Your task to perform on an android device: Clear the cart on bestbuy.com. Image 0: 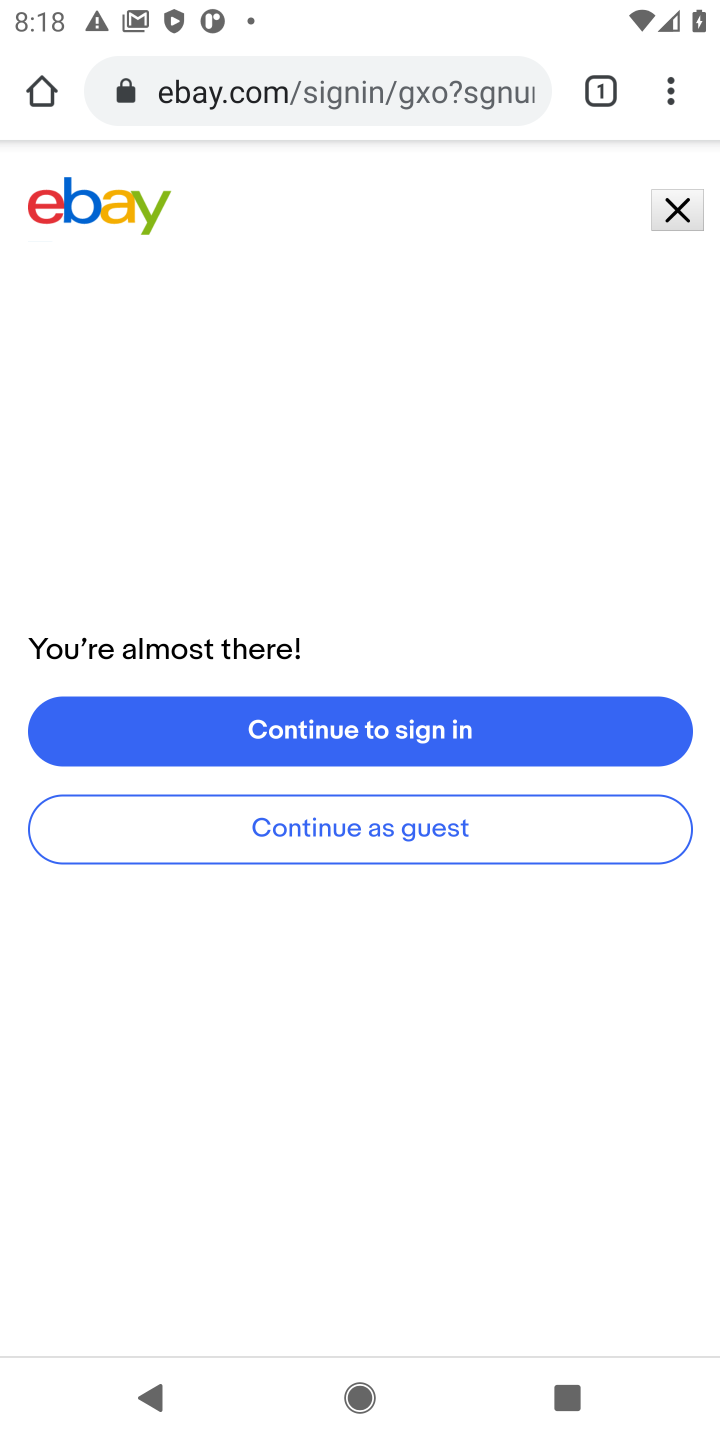
Step 0: press home button
Your task to perform on an android device: Clear the cart on bestbuy.com. Image 1: 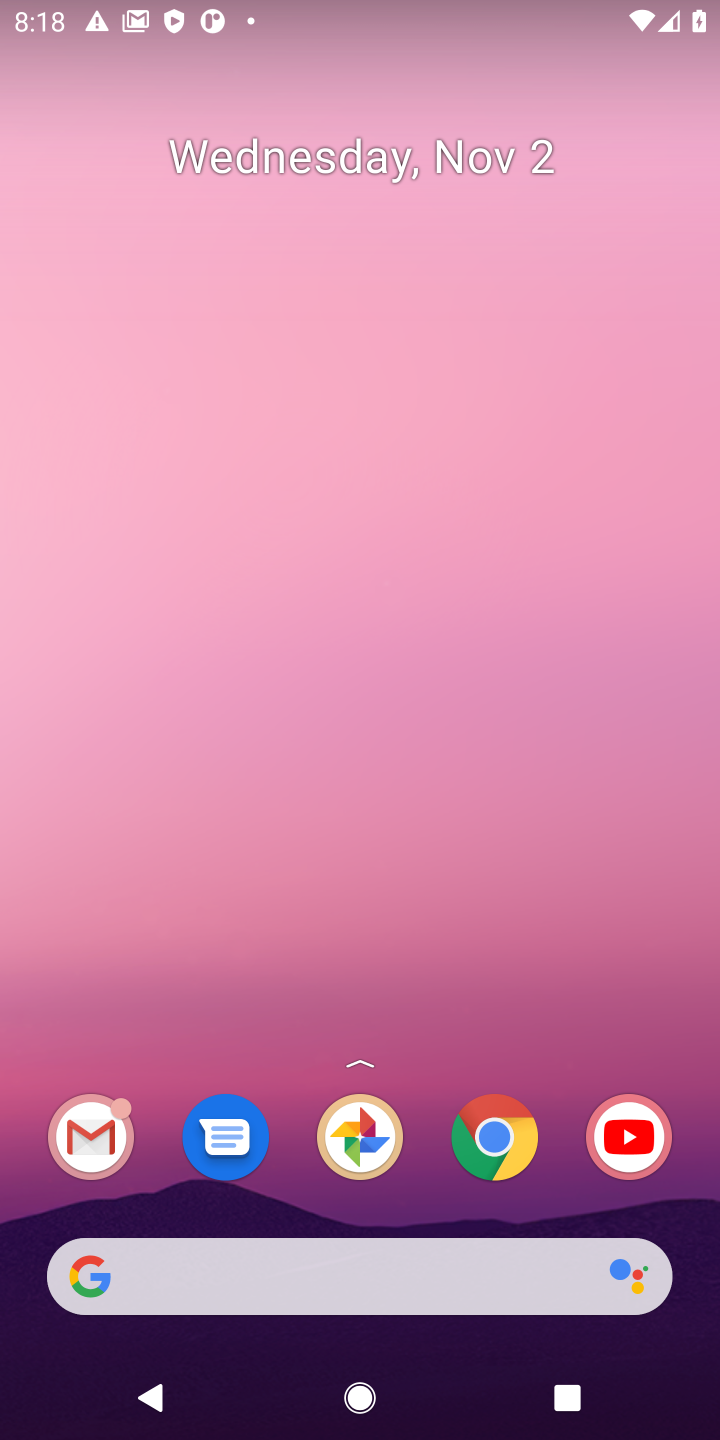
Step 1: click (494, 1145)
Your task to perform on an android device: Clear the cart on bestbuy.com. Image 2: 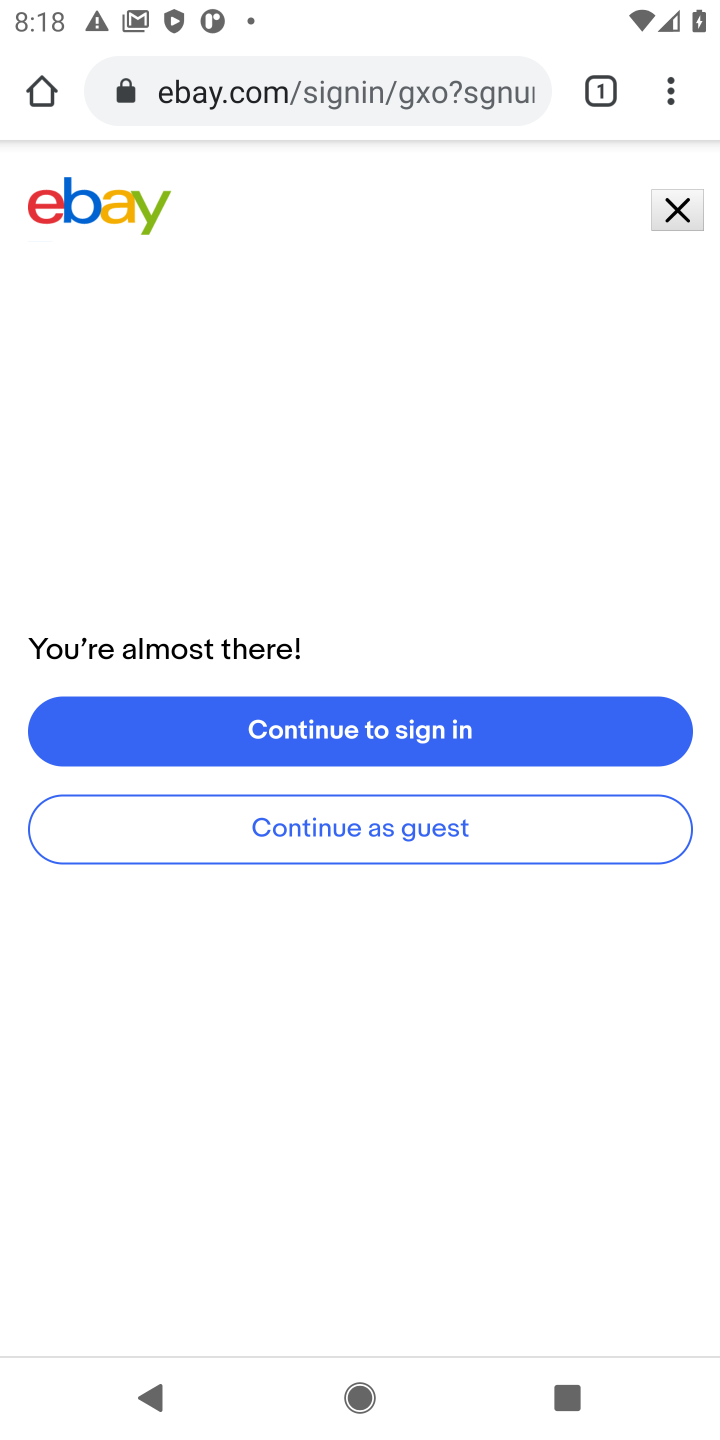
Step 2: click (388, 58)
Your task to perform on an android device: Clear the cart on bestbuy.com. Image 3: 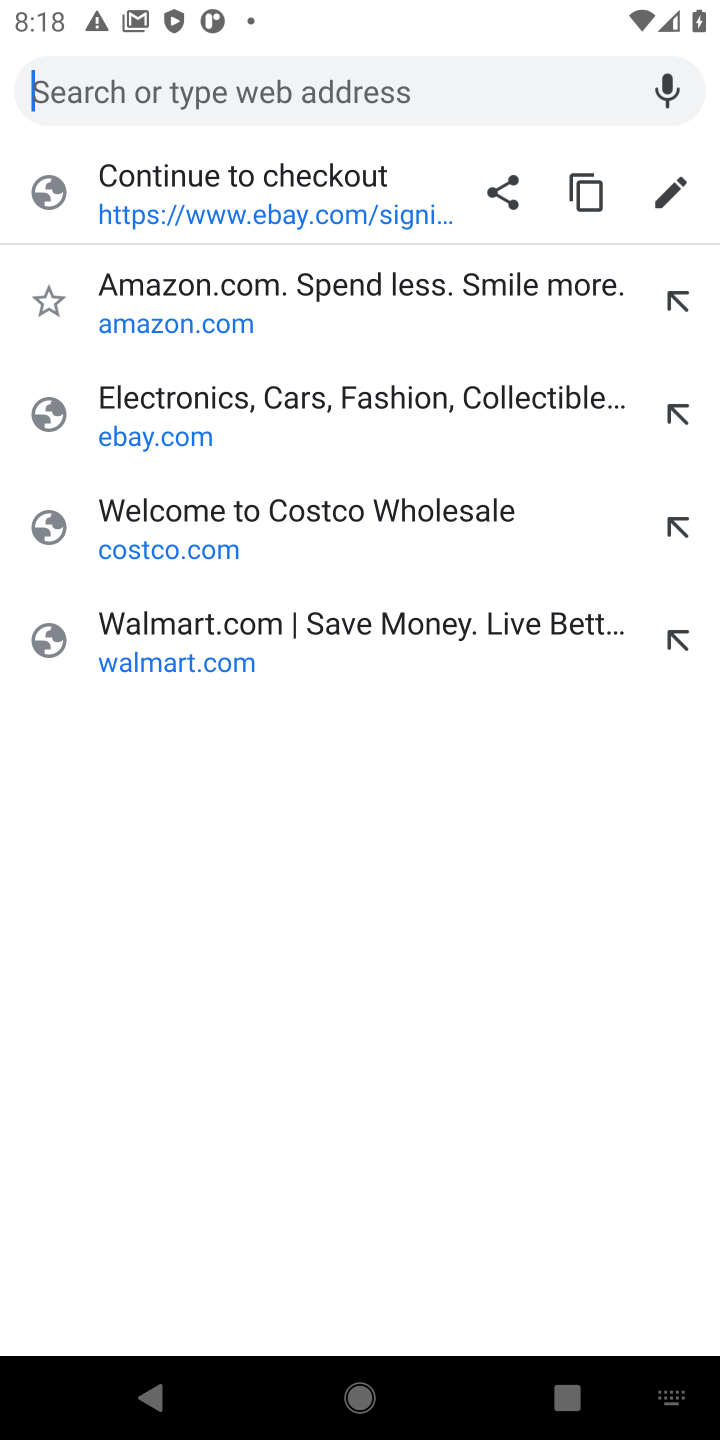
Step 3: type "bestbuy.com"
Your task to perform on an android device: Clear the cart on bestbuy.com. Image 4: 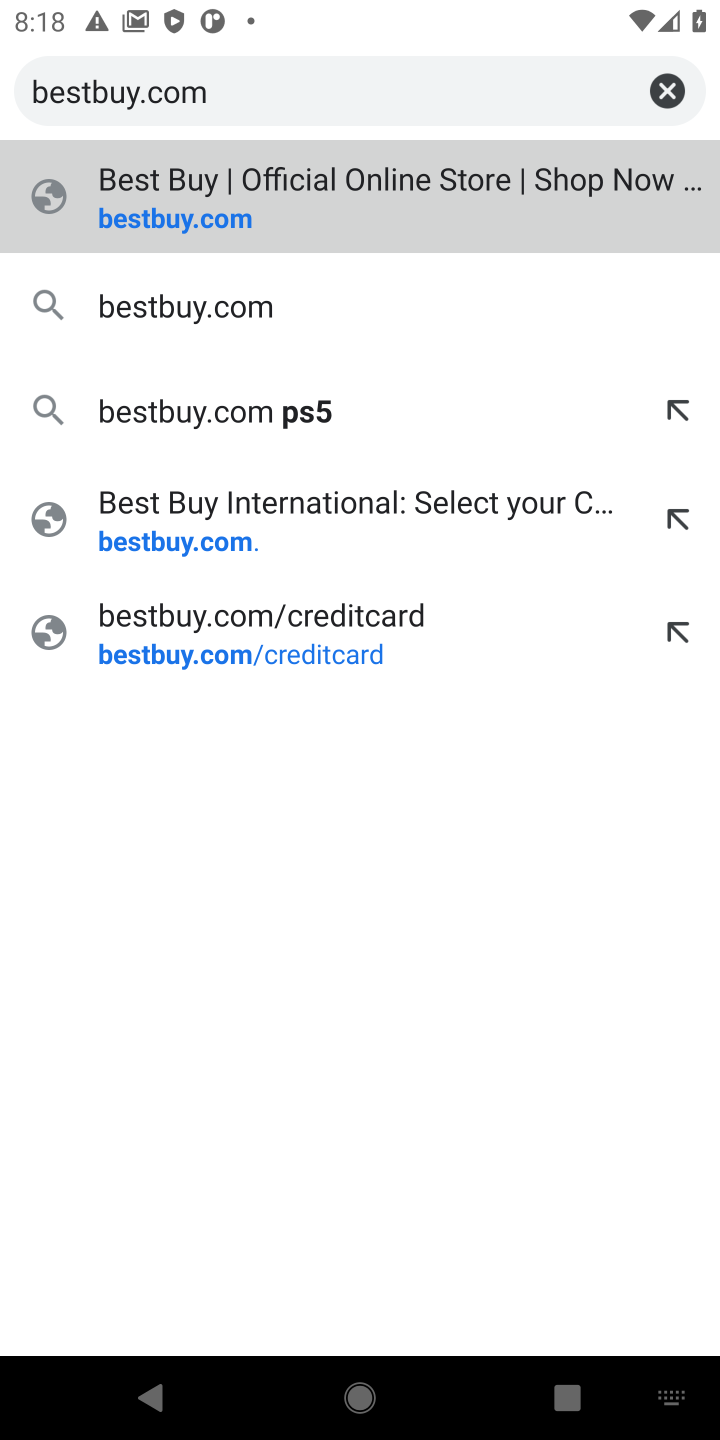
Step 4: click (210, 207)
Your task to perform on an android device: Clear the cart on bestbuy.com. Image 5: 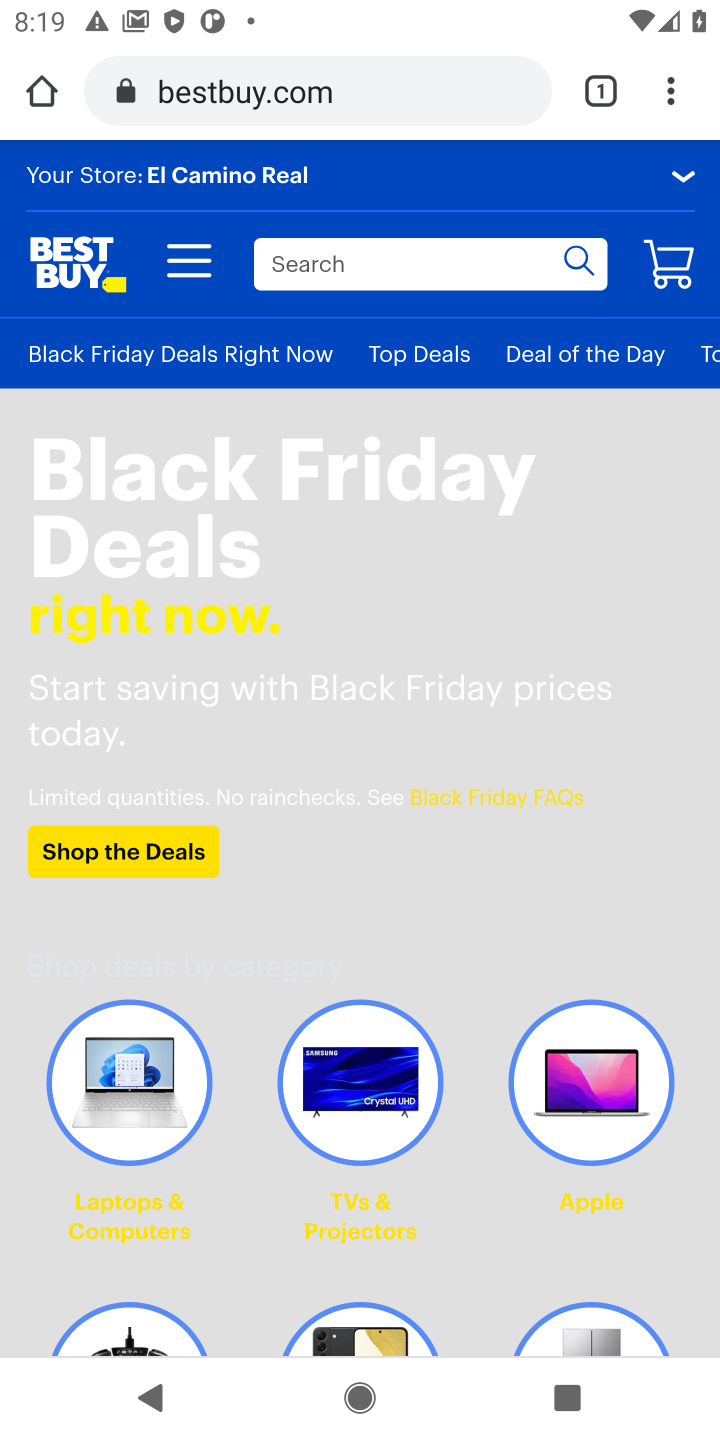
Step 5: click (668, 262)
Your task to perform on an android device: Clear the cart on bestbuy.com. Image 6: 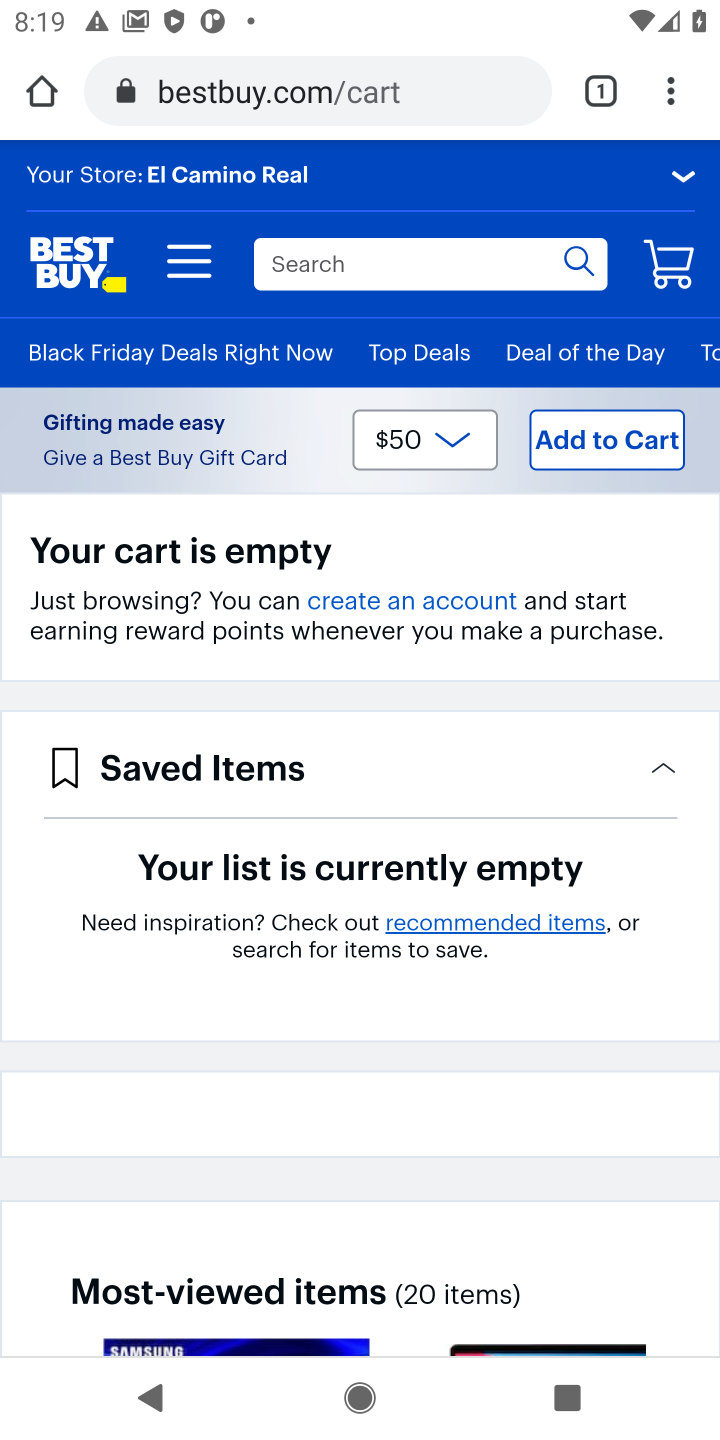
Step 6: task complete